Your task to perform on an android device: refresh tabs in the chrome app Image 0: 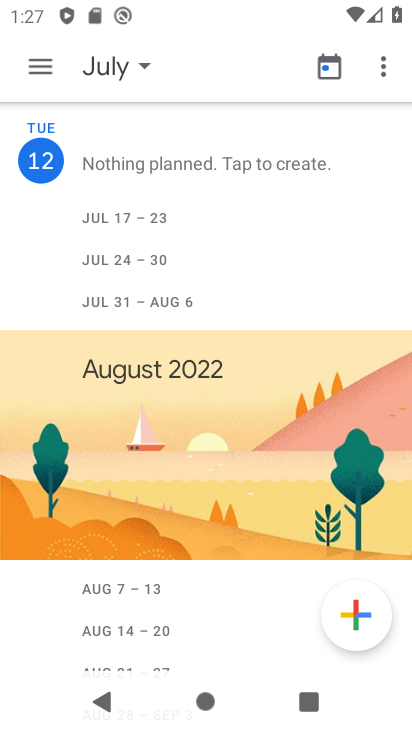
Step 0: press home button
Your task to perform on an android device: refresh tabs in the chrome app Image 1: 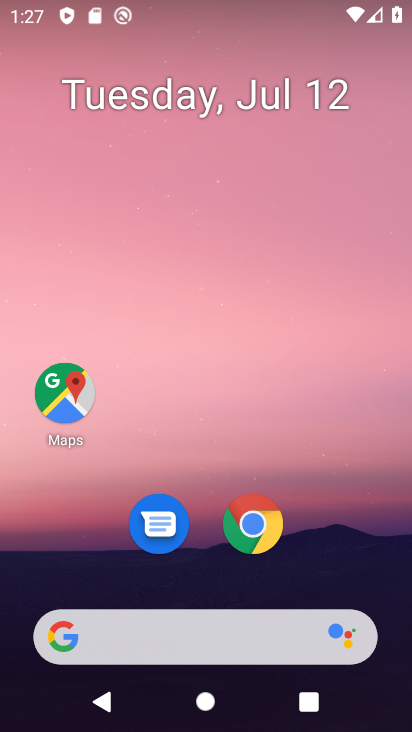
Step 1: drag from (311, 513) to (336, 78)
Your task to perform on an android device: refresh tabs in the chrome app Image 2: 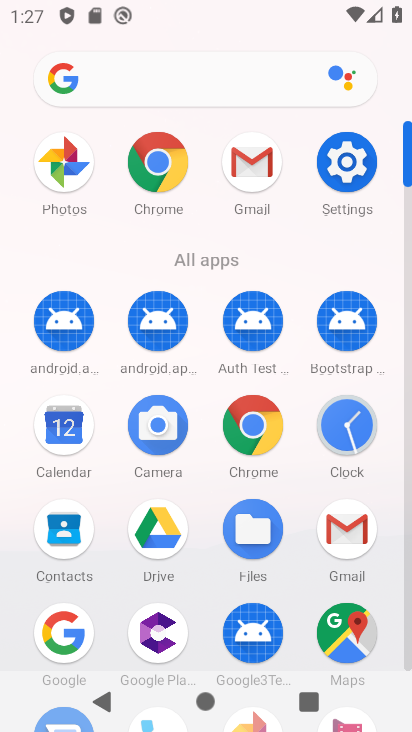
Step 2: click (152, 157)
Your task to perform on an android device: refresh tabs in the chrome app Image 3: 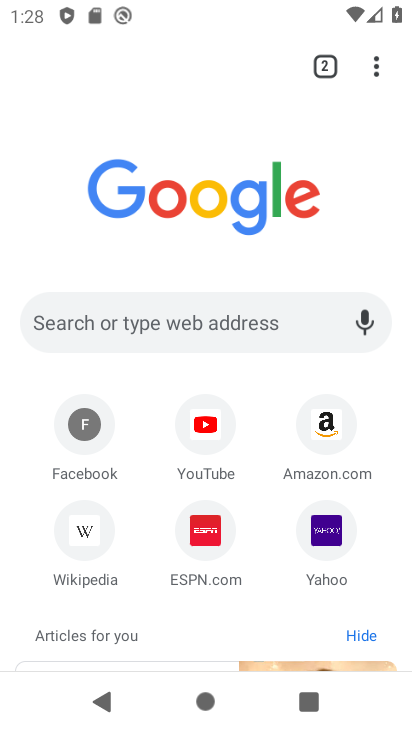
Step 3: click (376, 65)
Your task to perform on an android device: refresh tabs in the chrome app Image 4: 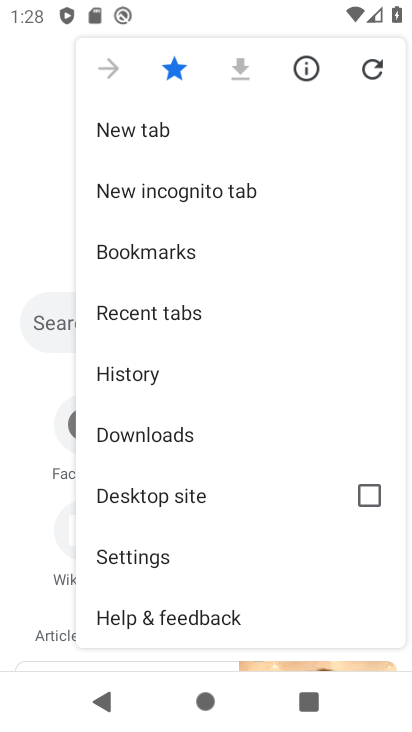
Step 4: click (371, 69)
Your task to perform on an android device: refresh tabs in the chrome app Image 5: 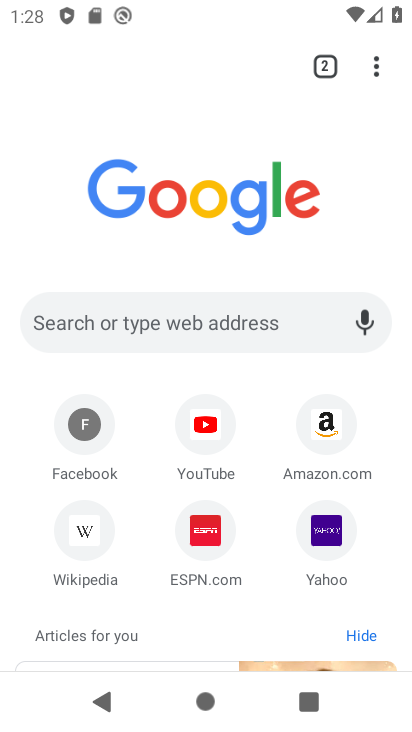
Step 5: task complete